Your task to perform on an android device: Go to Google maps Image 0: 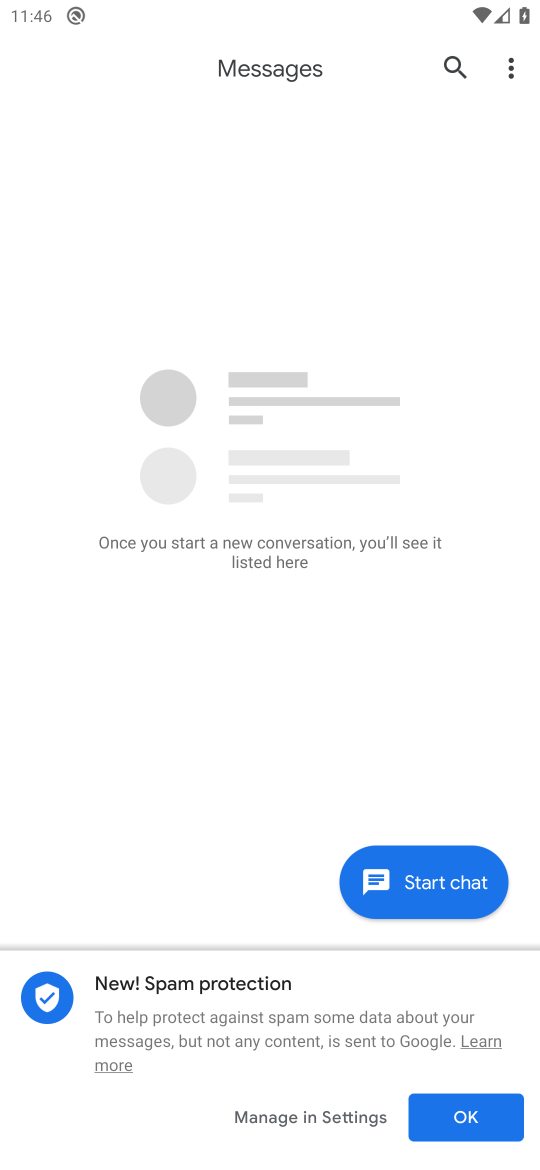
Step 0: press home button
Your task to perform on an android device: Go to Google maps Image 1: 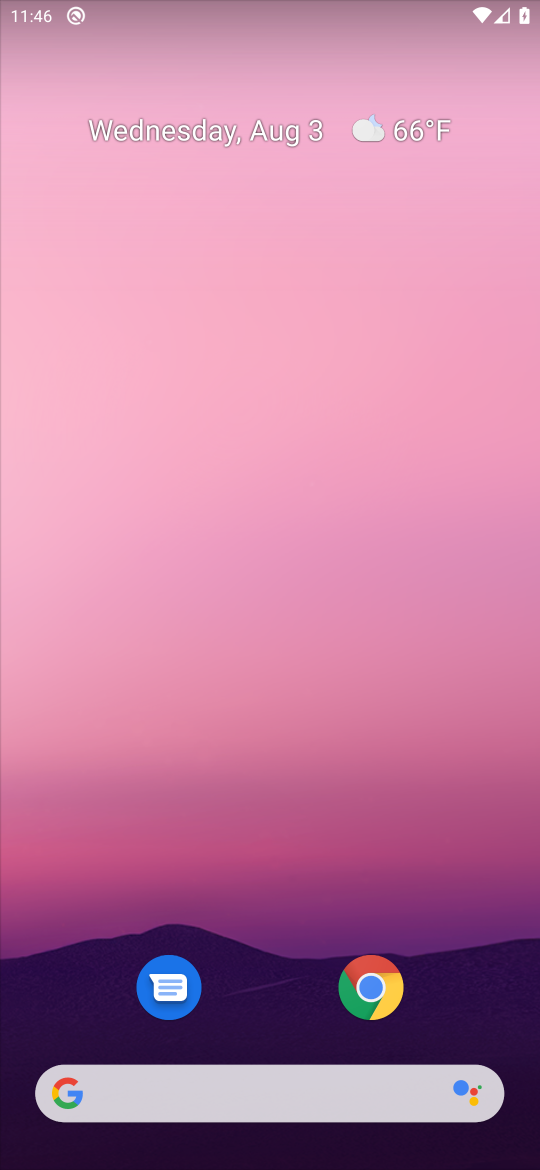
Step 1: drag from (158, 767) to (86, 334)
Your task to perform on an android device: Go to Google maps Image 2: 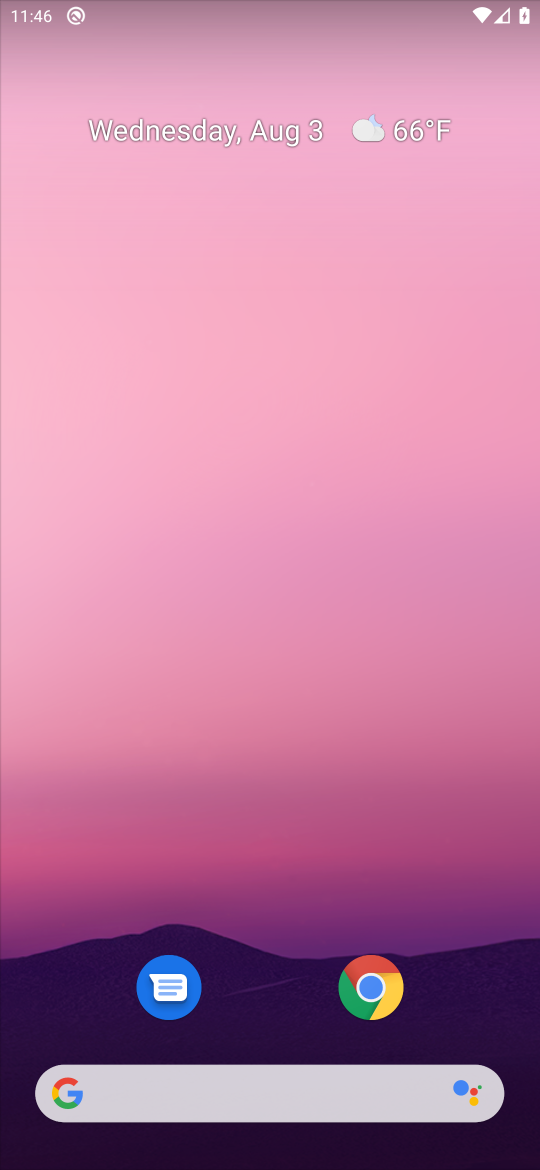
Step 2: drag from (257, 983) to (133, 230)
Your task to perform on an android device: Go to Google maps Image 3: 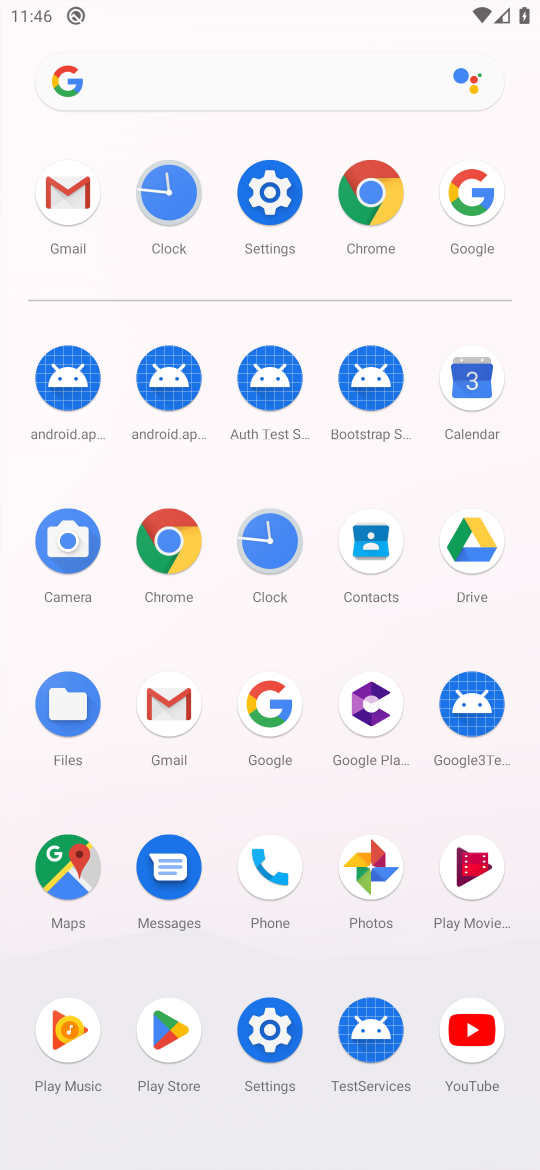
Step 3: click (62, 882)
Your task to perform on an android device: Go to Google maps Image 4: 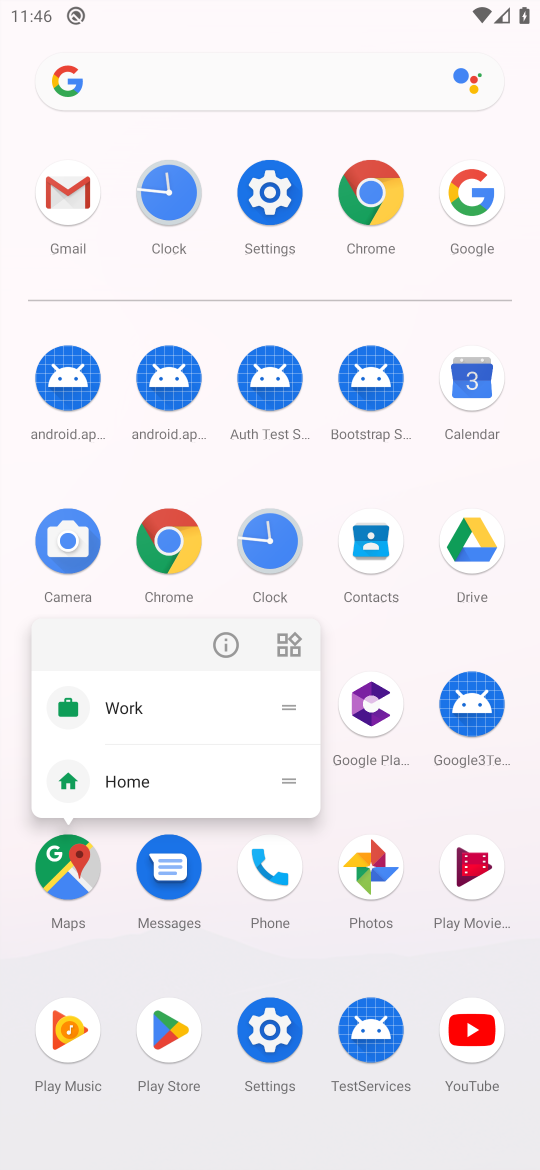
Step 4: click (62, 882)
Your task to perform on an android device: Go to Google maps Image 5: 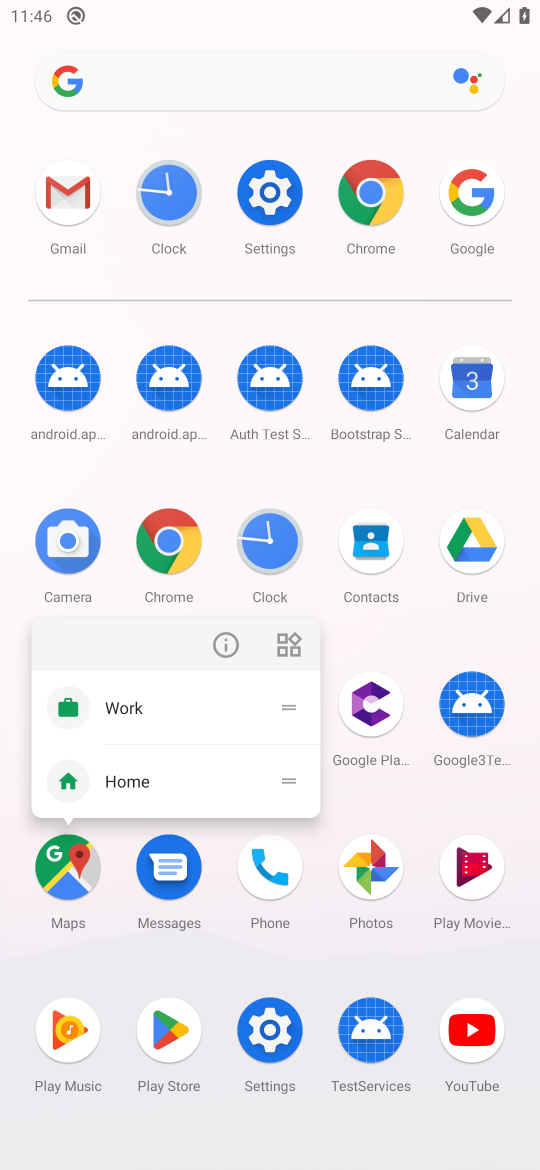
Step 5: click (72, 854)
Your task to perform on an android device: Go to Google maps Image 6: 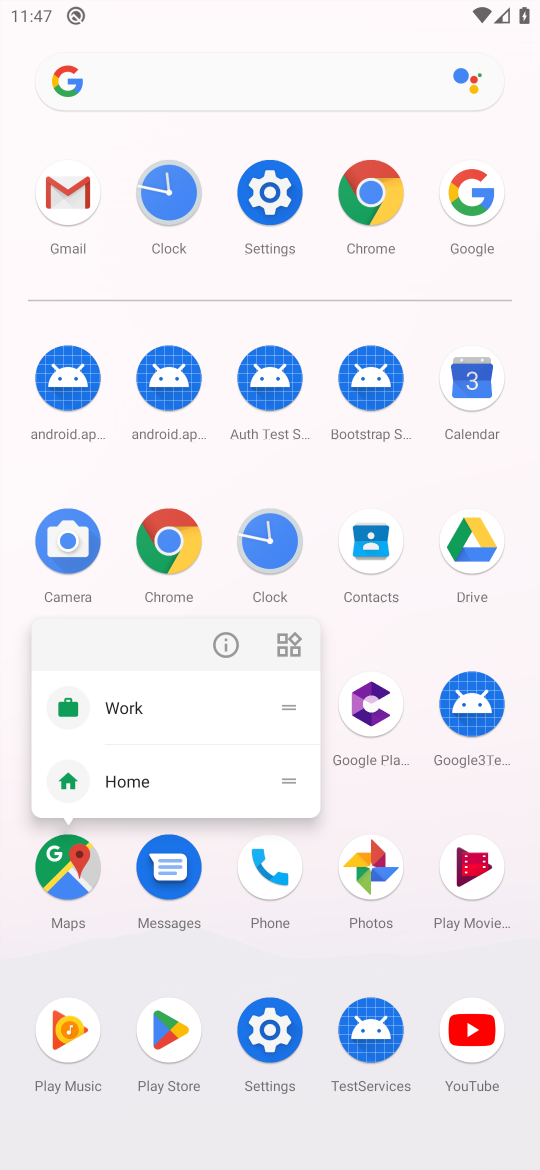
Step 6: click (55, 879)
Your task to perform on an android device: Go to Google maps Image 7: 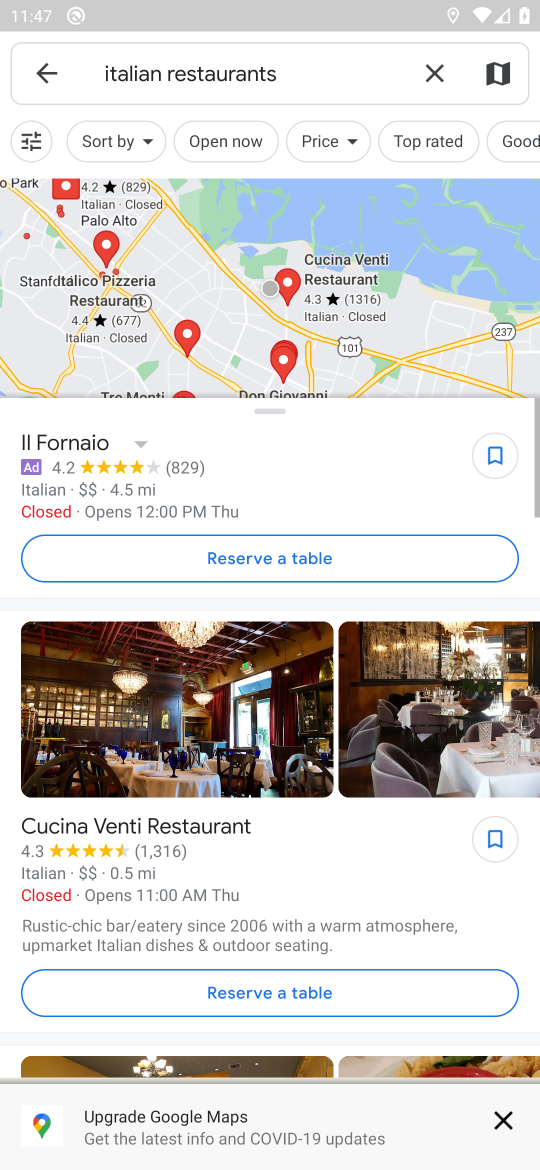
Step 7: click (437, 84)
Your task to perform on an android device: Go to Google maps Image 8: 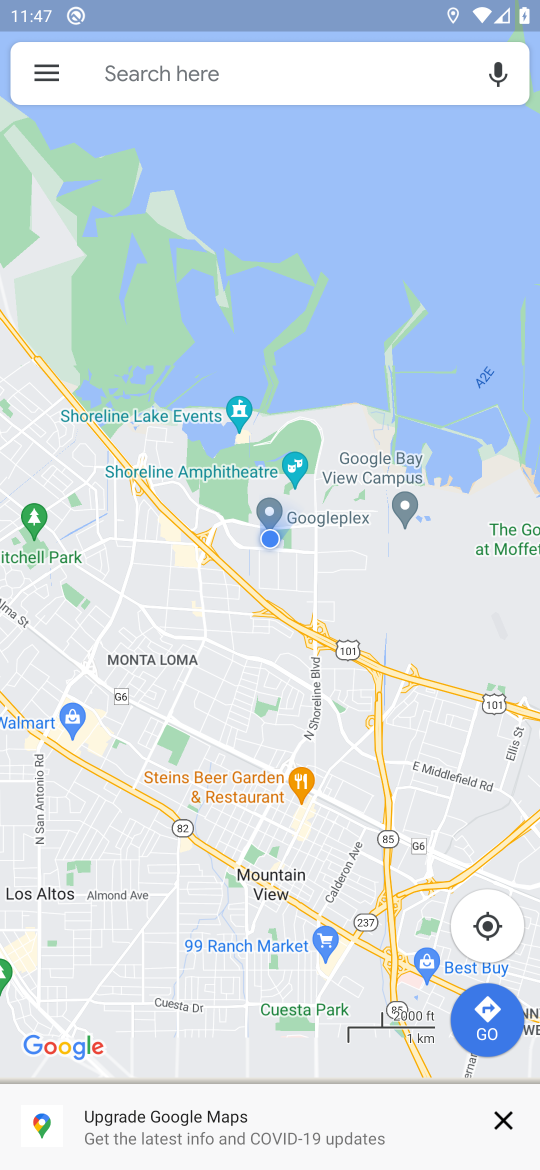
Step 8: task complete